Your task to perform on an android device: change notifications settings Image 0: 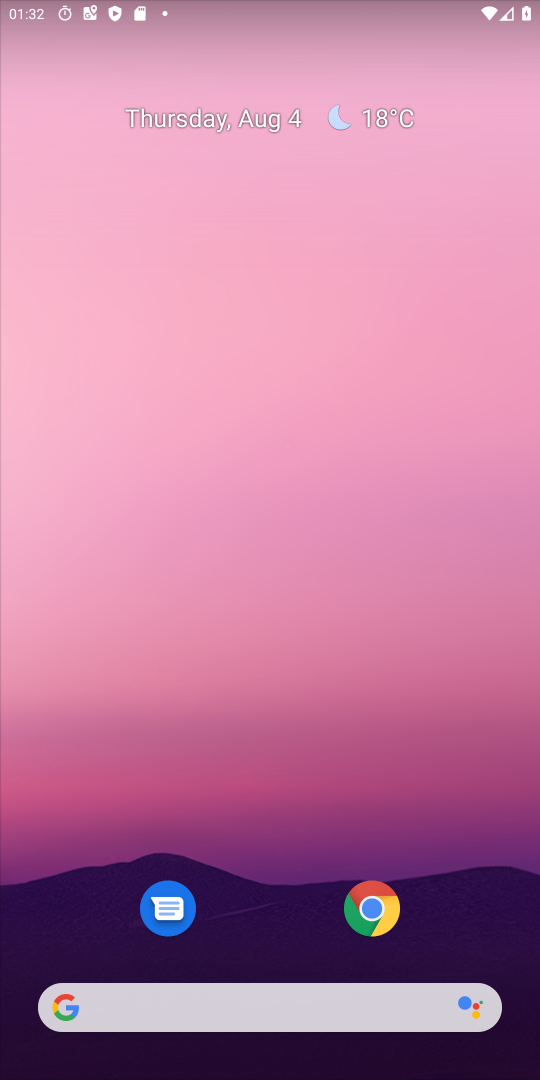
Step 0: press home button
Your task to perform on an android device: change notifications settings Image 1: 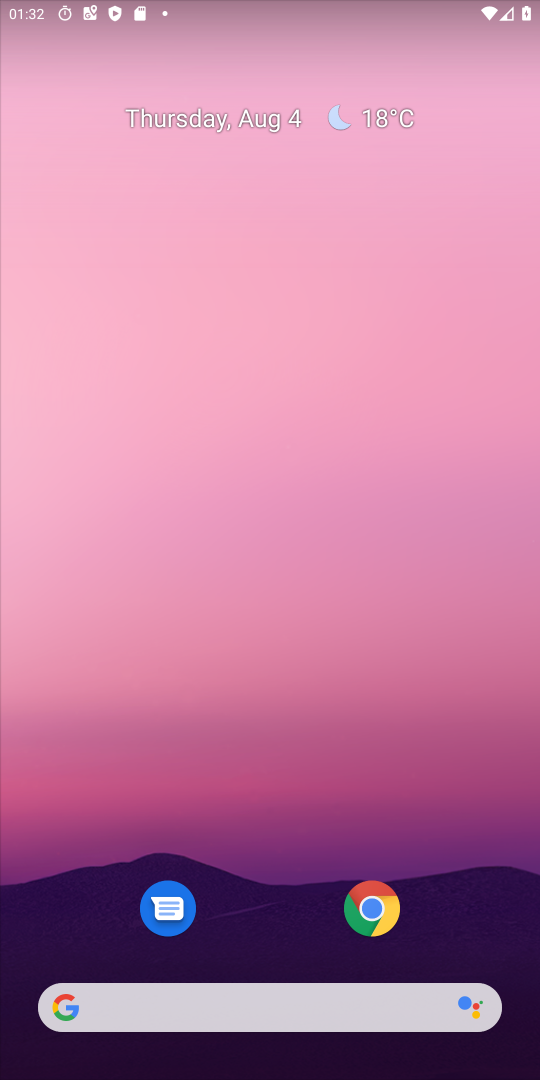
Step 1: drag from (302, 1009) to (280, 316)
Your task to perform on an android device: change notifications settings Image 2: 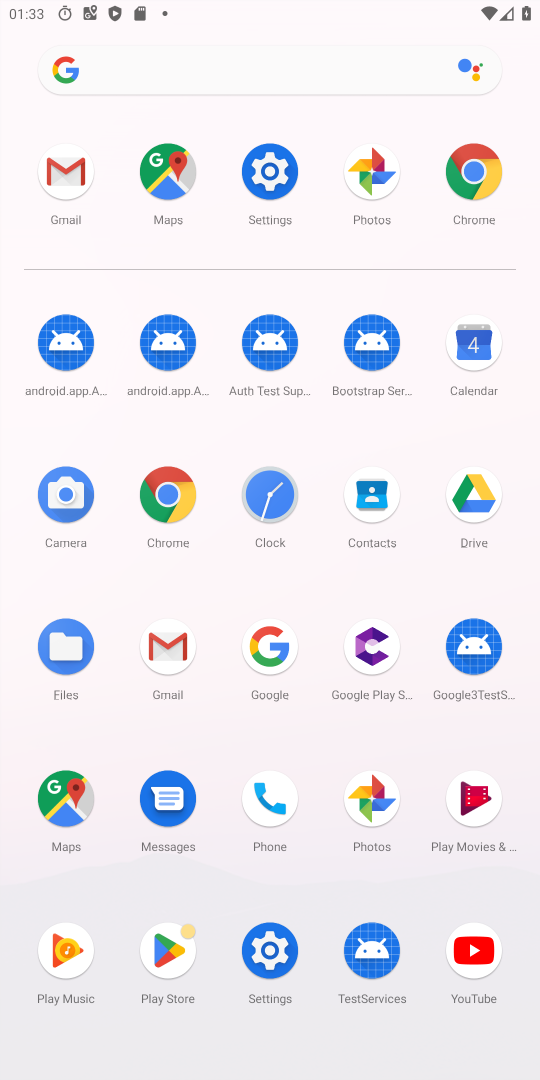
Step 2: click (272, 175)
Your task to perform on an android device: change notifications settings Image 3: 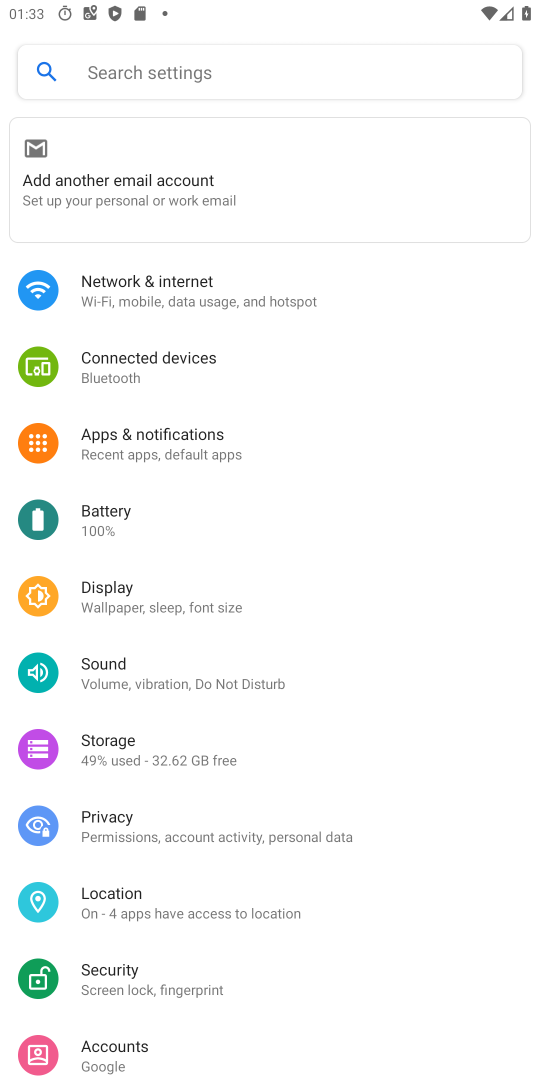
Step 3: click (131, 82)
Your task to perform on an android device: change notifications settings Image 4: 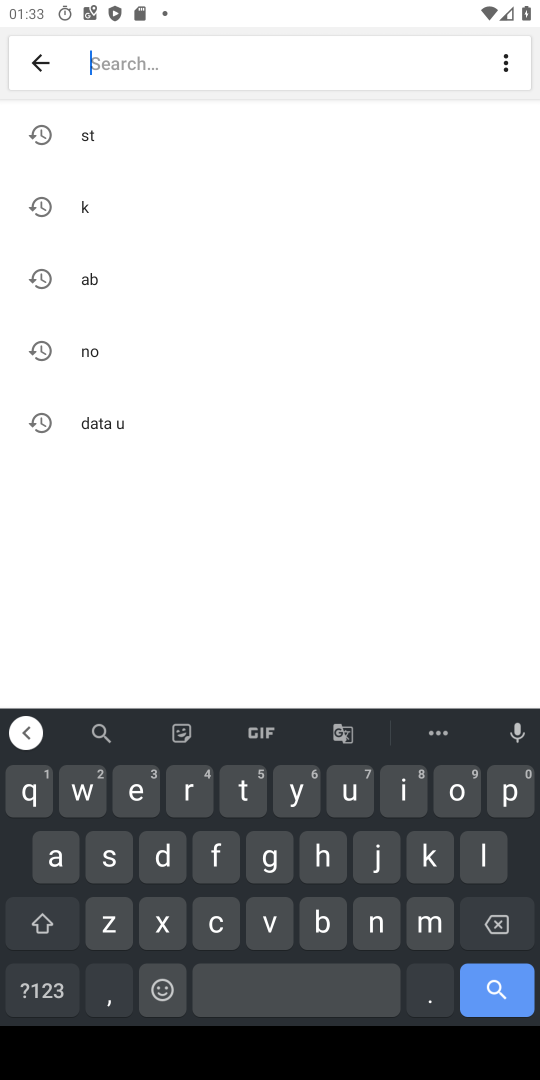
Step 4: click (96, 354)
Your task to perform on an android device: change notifications settings Image 5: 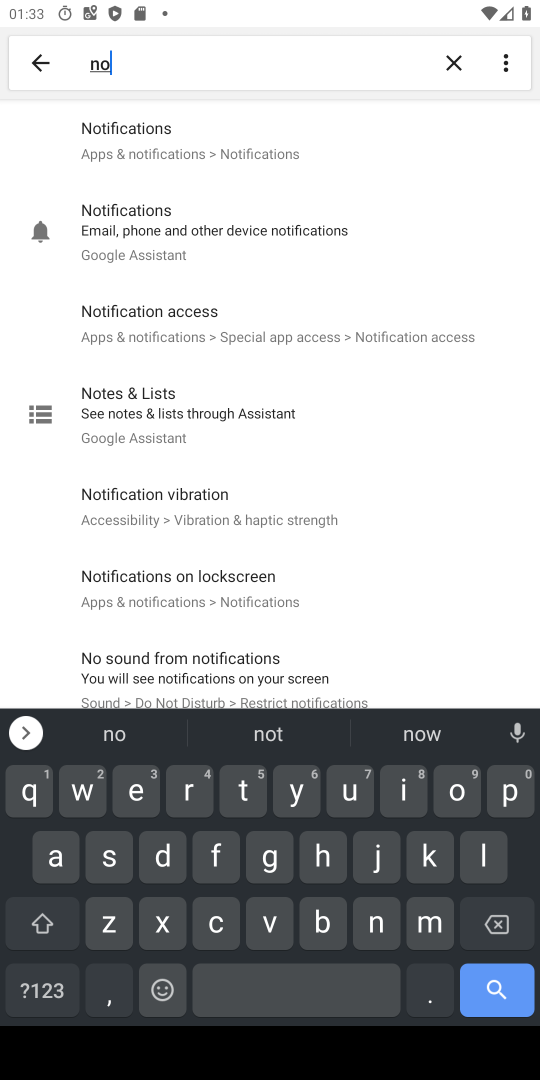
Step 5: click (183, 168)
Your task to perform on an android device: change notifications settings Image 6: 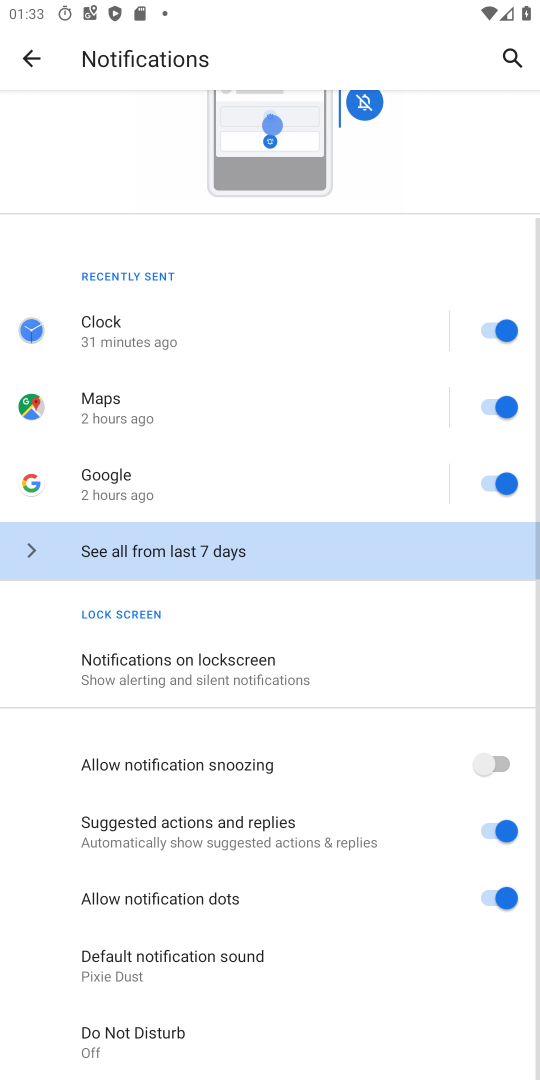
Step 6: click (159, 673)
Your task to perform on an android device: change notifications settings Image 7: 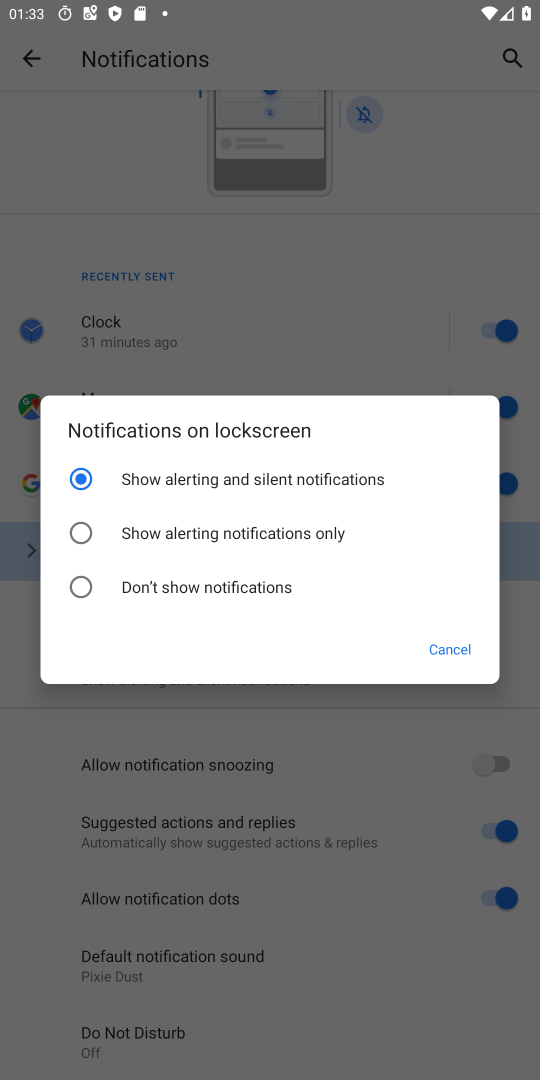
Step 7: click (162, 518)
Your task to perform on an android device: change notifications settings Image 8: 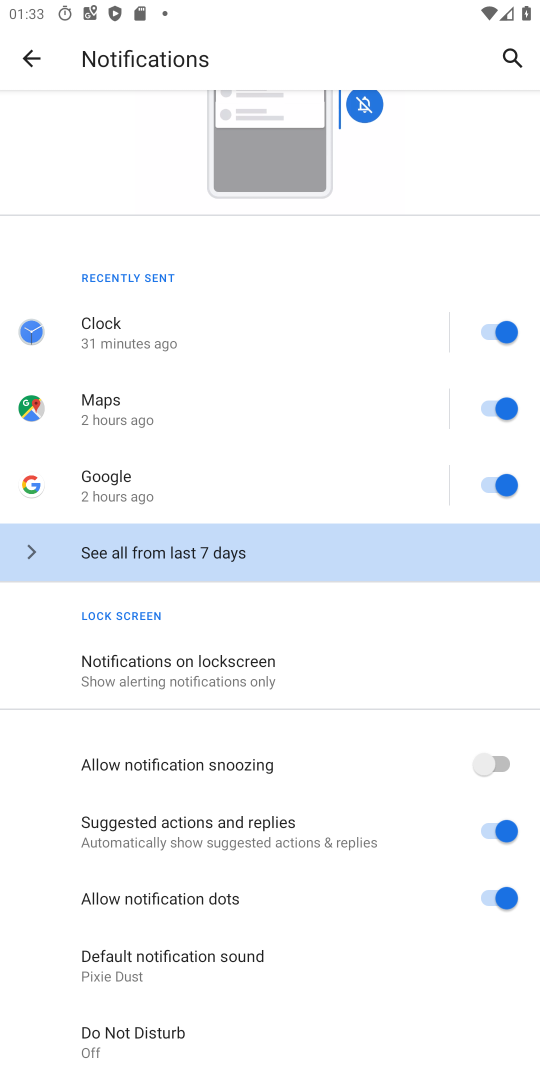
Step 8: click (148, 644)
Your task to perform on an android device: change notifications settings Image 9: 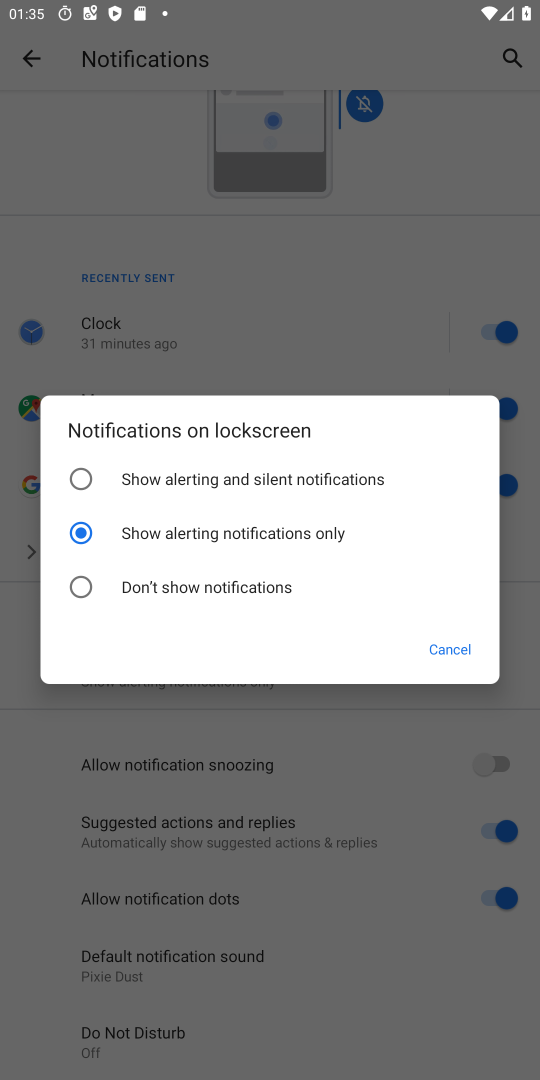
Step 9: task complete